Your task to perform on an android device: delete browsing data in the chrome app Image 0: 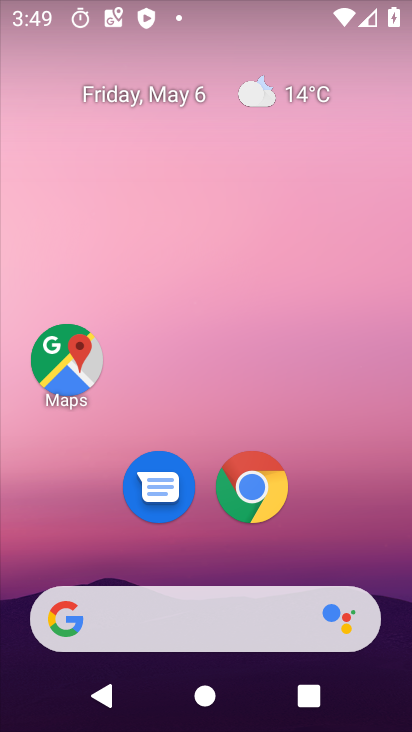
Step 0: click (263, 495)
Your task to perform on an android device: delete browsing data in the chrome app Image 1: 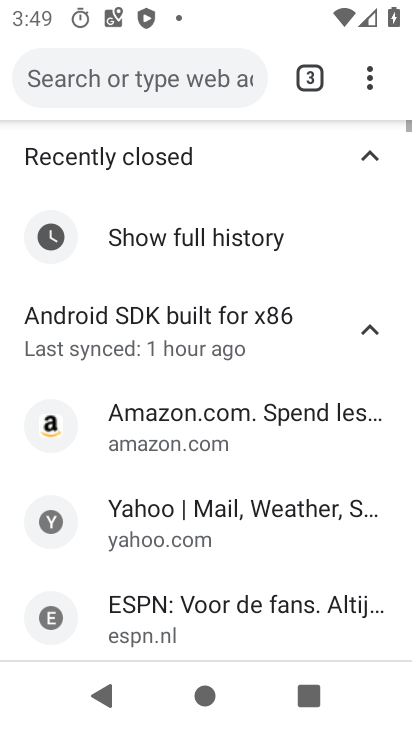
Step 1: click (368, 85)
Your task to perform on an android device: delete browsing data in the chrome app Image 2: 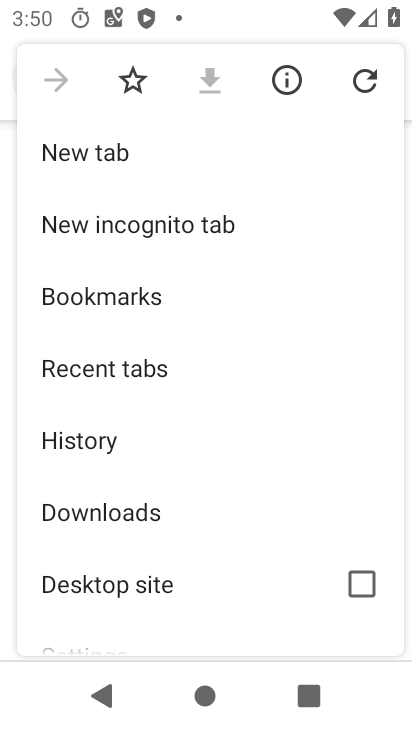
Step 2: click (77, 432)
Your task to perform on an android device: delete browsing data in the chrome app Image 3: 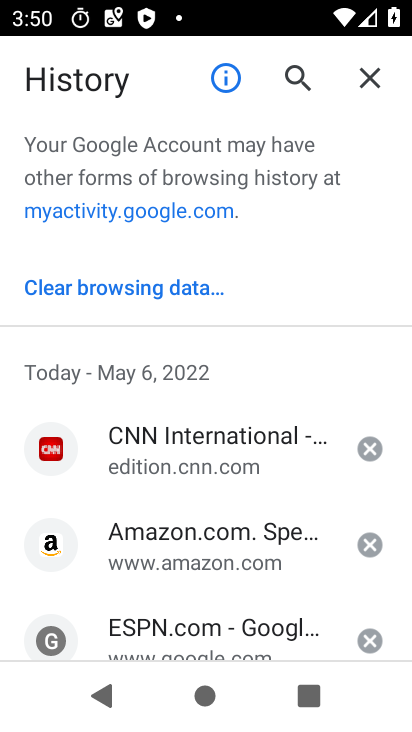
Step 3: click (164, 285)
Your task to perform on an android device: delete browsing data in the chrome app Image 4: 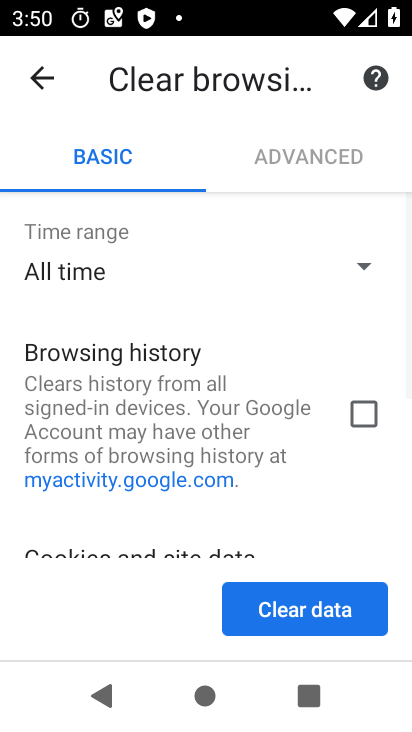
Step 4: click (366, 405)
Your task to perform on an android device: delete browsing data in the chrome app Image 5: 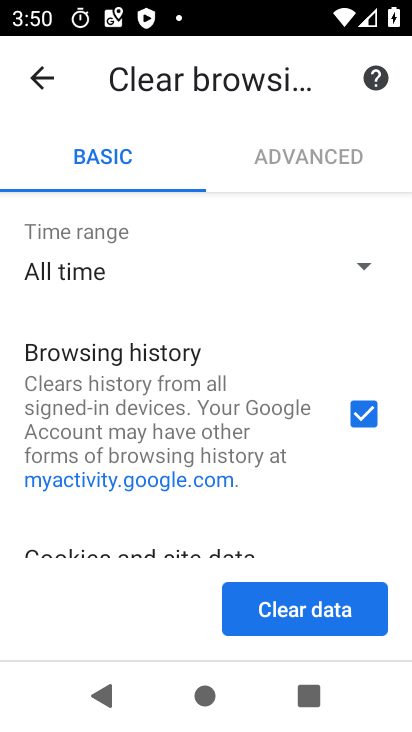
Step 5: click (290, 618)
Your task to perform on an android device: delete browsing data in the chrome app Image 6: 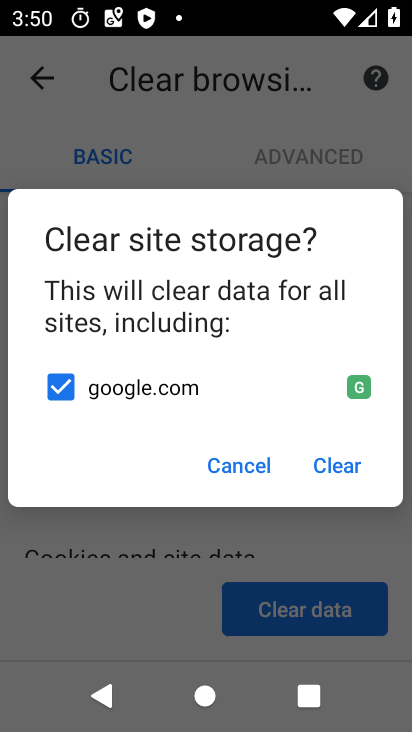
Step 6: click (339, 463)
Your task to perform on an android device: delete browsing data in the chrome app Image 7: 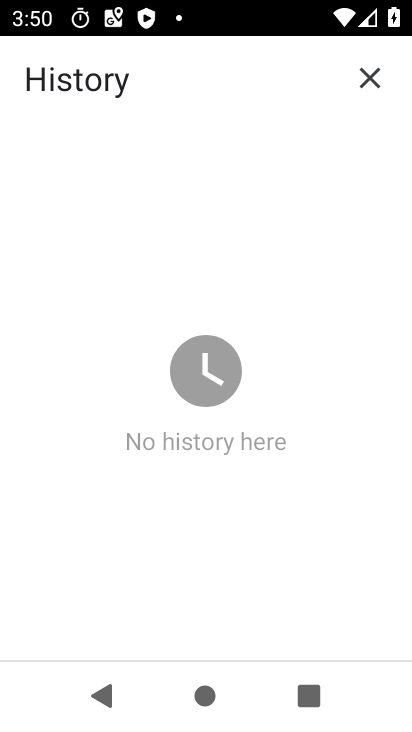
Step 7: task complete